Your task to perform on an android device: Open Google Chrome Image 0: 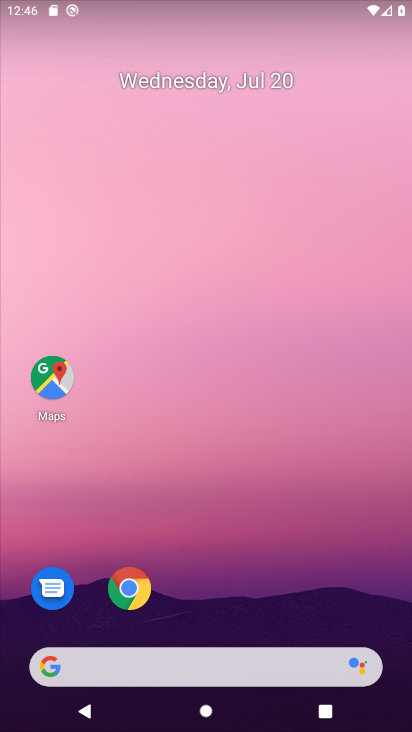
Step 0: drag from (208, 633) to (259, 182)
Your task to perform on an android device: Open Google Chrome Image 1: 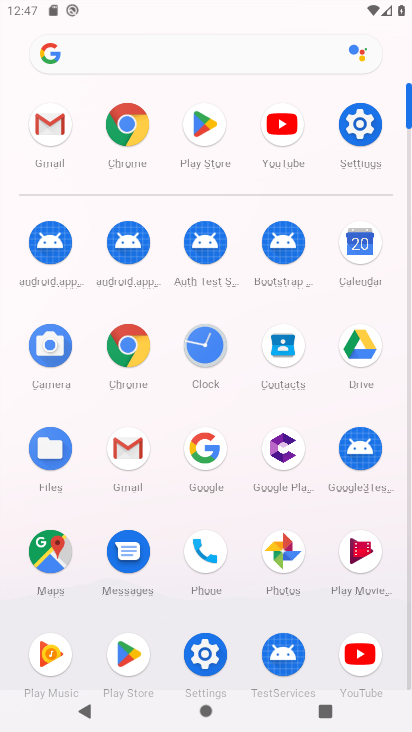
Step 1: click (210, 447)
Your task to perform on an android device: Open Google Chrome Image 2: 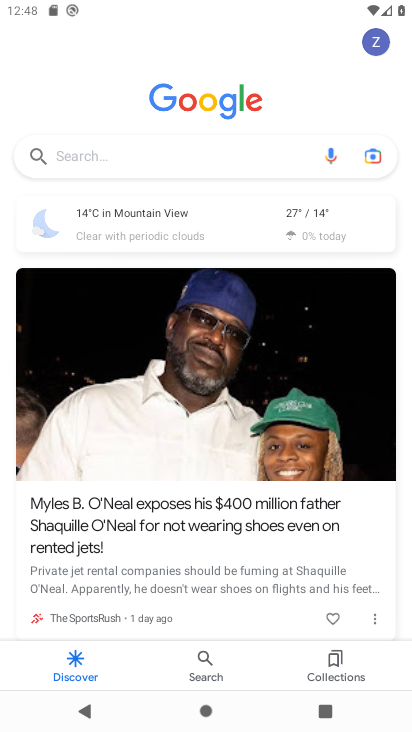
Step 2: task complete